Your task to perform on an android device: open chrome privacy settings Image 0: 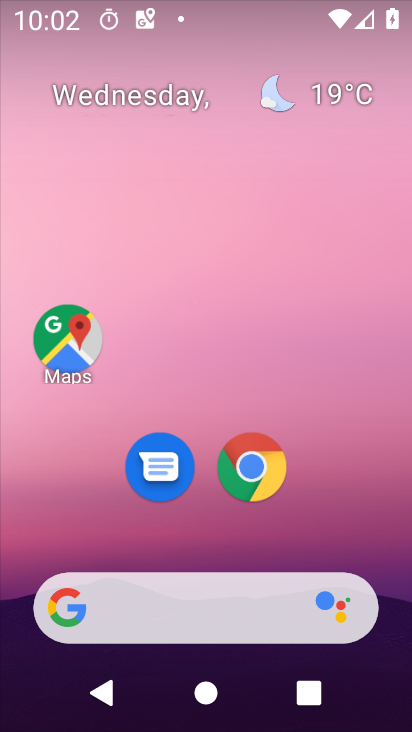
Step 0: click (259, 464)
Your task to perform on an android device: open chrome privacy settings Image 1: 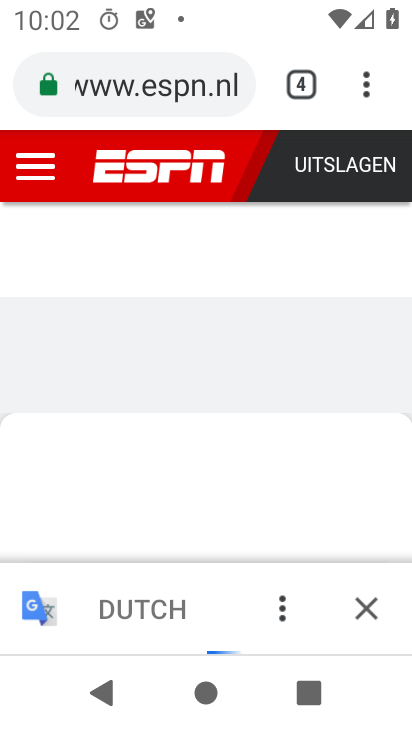
Step 1: click (370, 89)
Your task to perform on an android device: open chrome privacy settings Image 2: 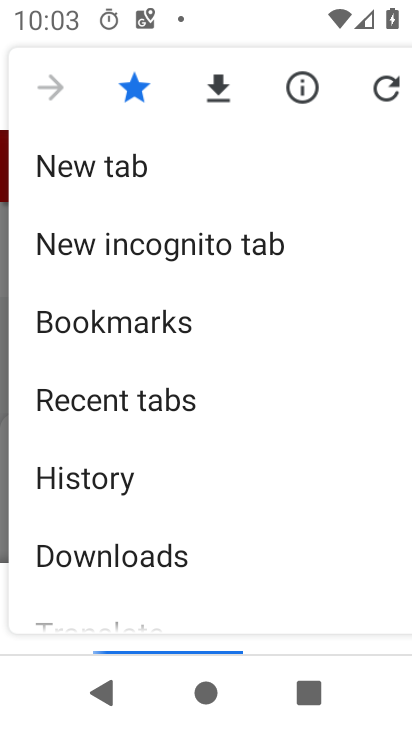
Step 2: drag from (231, 518) to (186, 220)
Your task to perform on an android device: open chrome privacy settings Image 3: 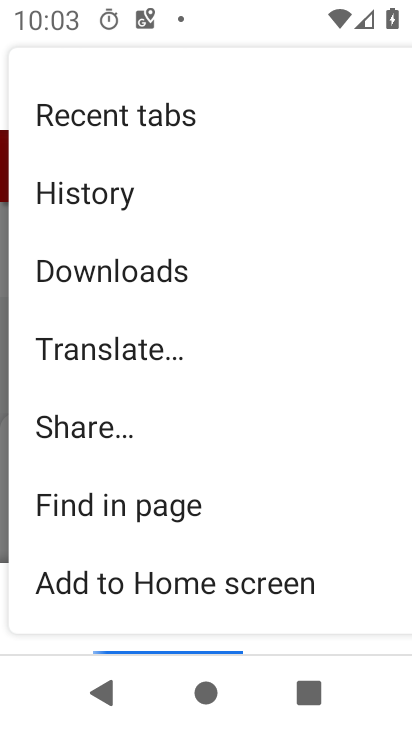
Step 3: drag from (229, 512) to (204, 181)
Your task to perform on an android device: open chrome privacy settings Image 4: 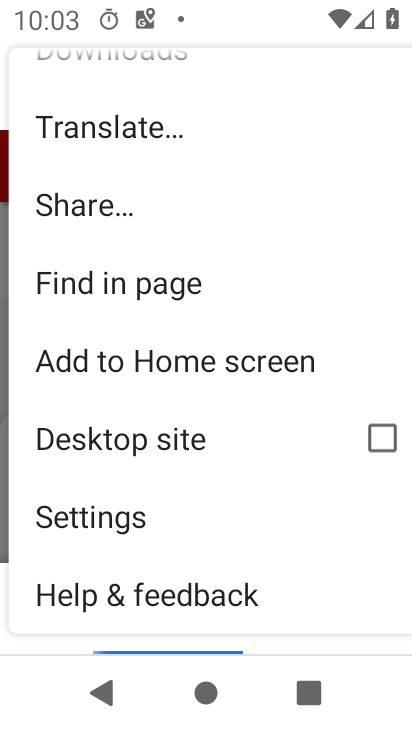
Step 4: click (152, 505)
Your task to perform on an android device: open chrome privacy settings Image 5: 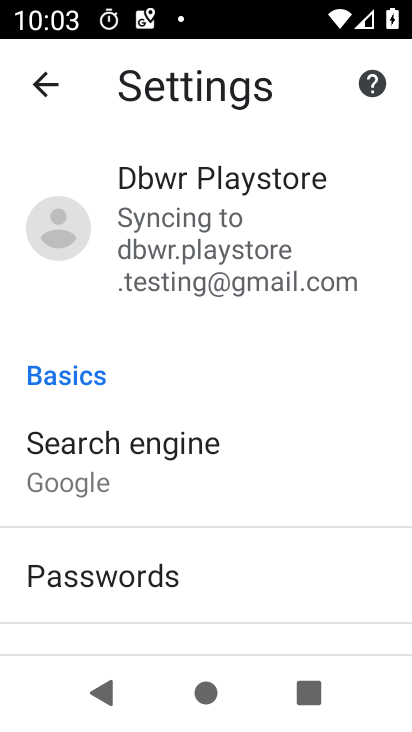
Step 5: drag from (219, 527) to (259, 180)
Your task to perform on an android device: open chrome privacy settings Image 6: 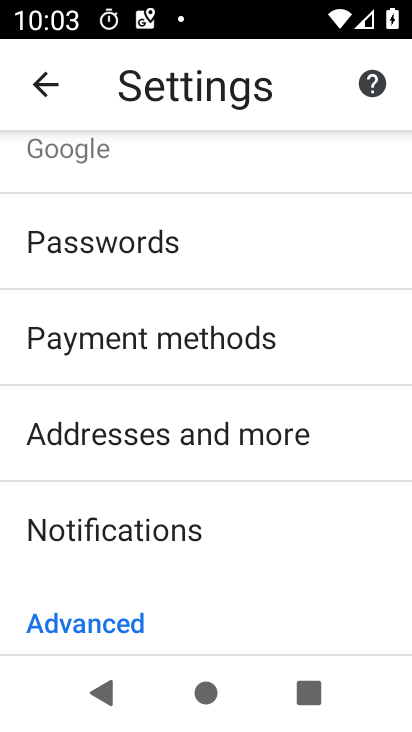
Step 6: drag from (187, 583) to (215, 238)
Your task to perform on an android device: open chrome privacy settings Image 7: 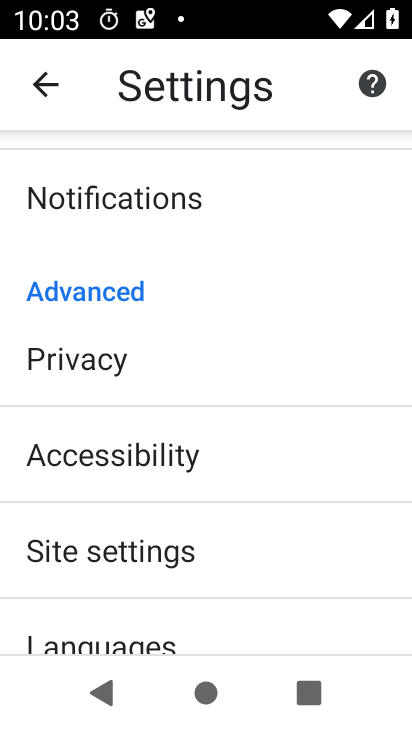
Step 7: click (107, 381)
Your task to perform on an android device: open chrome privacy settings Image 8: 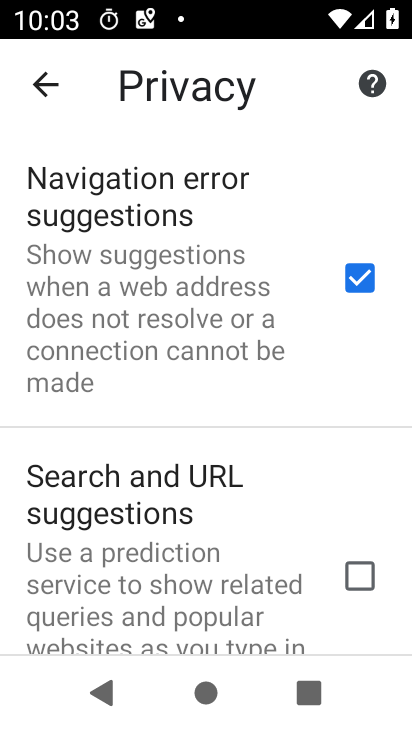
Step 8: task complete